Your task to perform on an android device: empty trash in google photos Image 0: 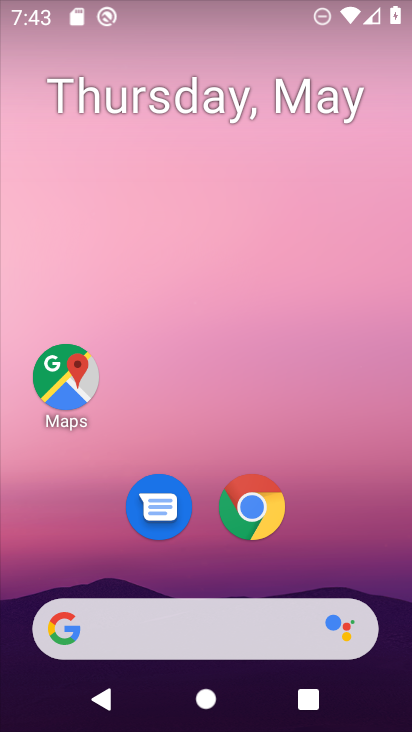
Step 0: drag from (330, 492) to (315, 5)
Your task to perform on an android device: empty trash in google photos Image 1: 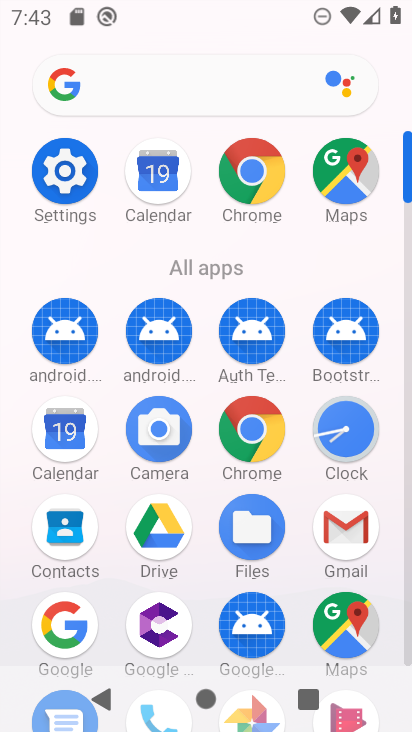
Step 1: drag from (382, 577) to (364, 250)
Your task to perform on an android device: empty trash in google photos Image 2: 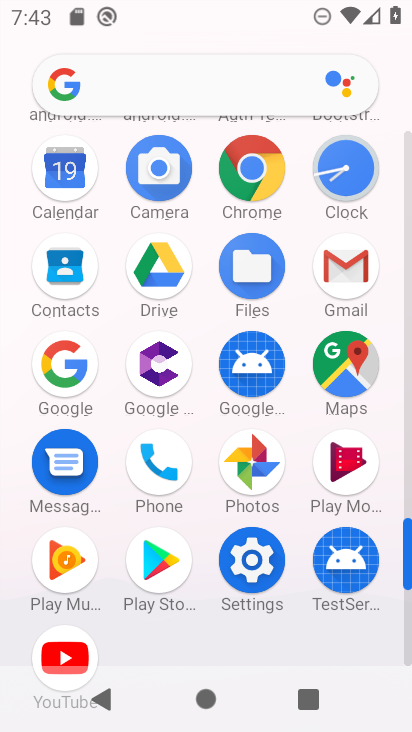
Step 2: click (233, 469)
Your task to perform on an android device: empty trash in google photos Image 3: 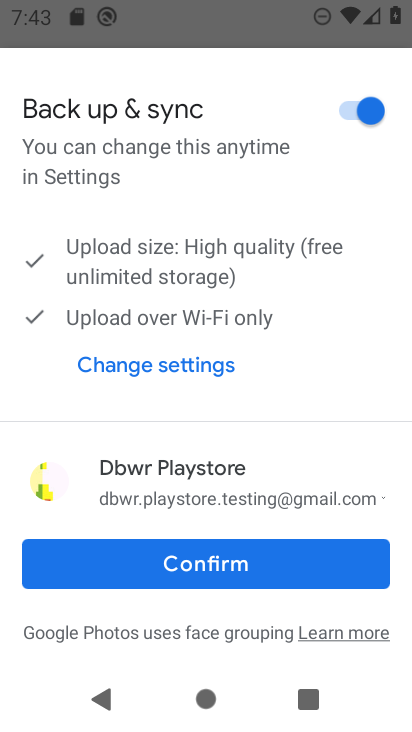
Step 3: click (235, 559)
Your task to perform on an android device: empty trash in google photos Image 4: 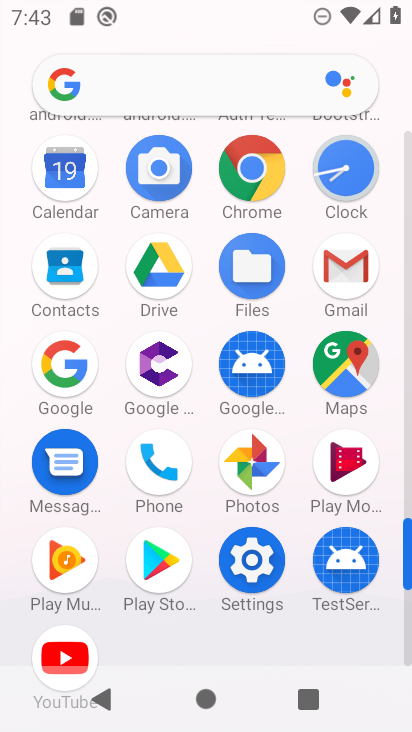
Step 4: click (267, 461)
Your task to perform on an android device: empty trash in google photos Image 5: 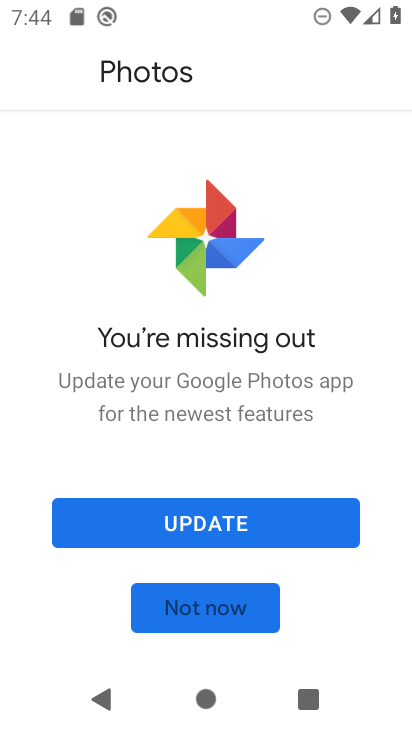
Step 5: click (180, 522)
Your task to perform on an android device: empty trash in google photos Image 6: 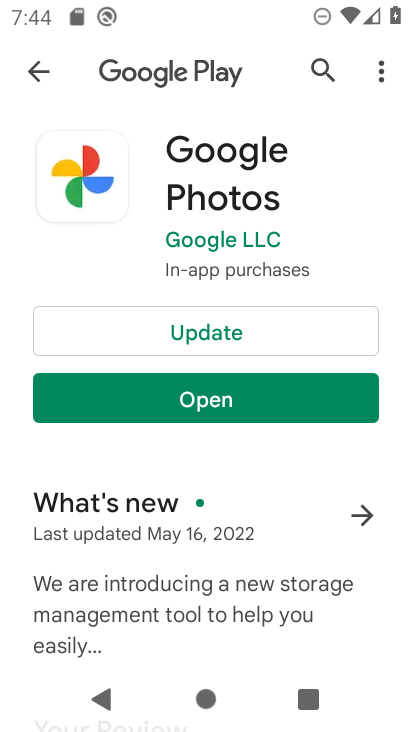
Step 6: click (187, 421)
Your task to perform on an android device: empty trash in google photos Image 7: 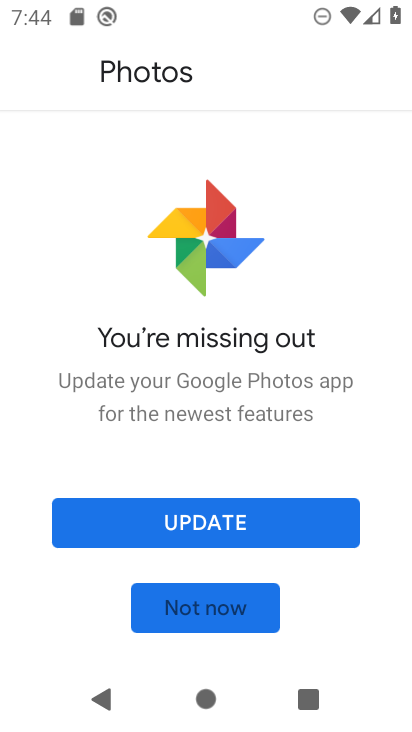
Step 7: click (225, 525)
Your task to perform on an android device: empty trash in google photos Image 8: 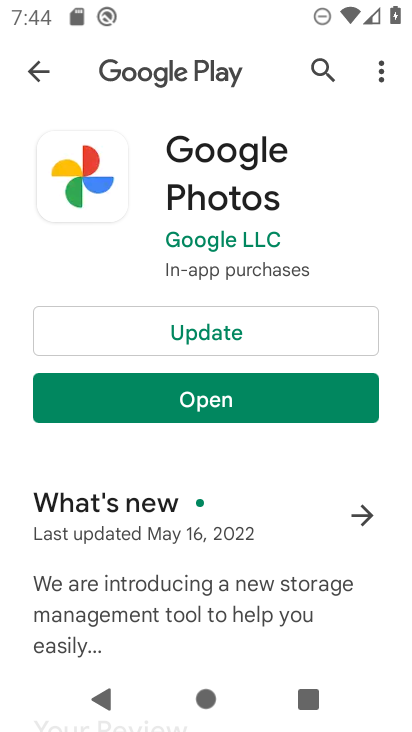
Step 8: click (241, 401)
Your task to perform on an android device: empty trash in google photos Image 9: 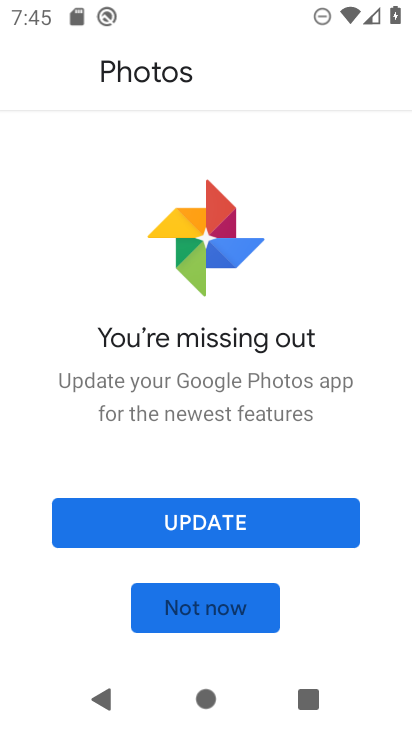
Step 9: click (219, 530)
Your task to perform on an android device: empty trash in google photos Image 10: 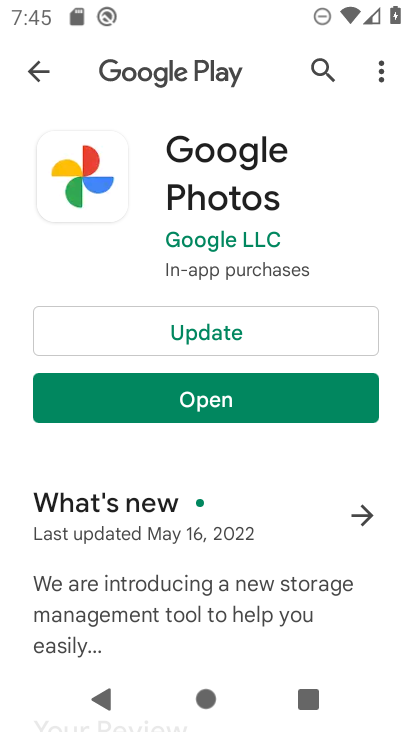
Step 10: click (216, 404)
Your task to perform on an android device: empty trash in google photos Image 11: 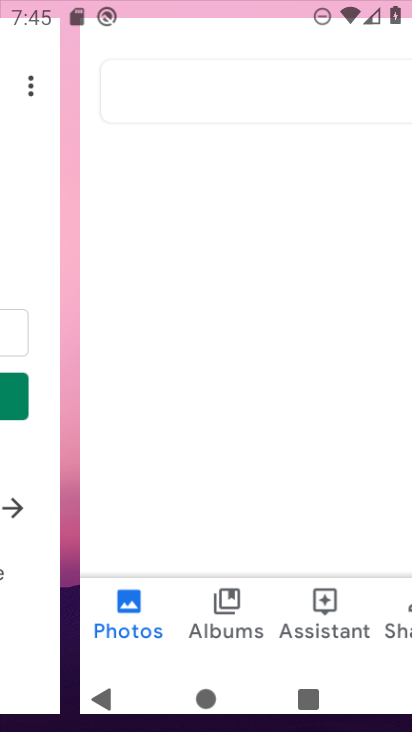
Step 11: click (199, 349)
Your task to perform on an android device: empty trash in google photos Image 12: 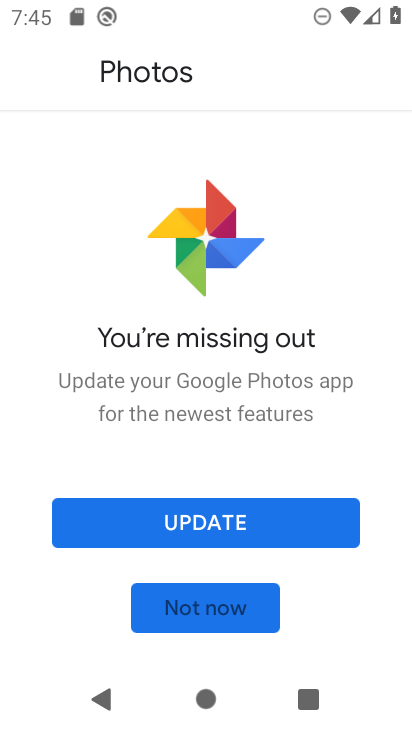
Step 12: click (200, 525)
Your task to perform on an android device: empty trash in google photos Image 13: 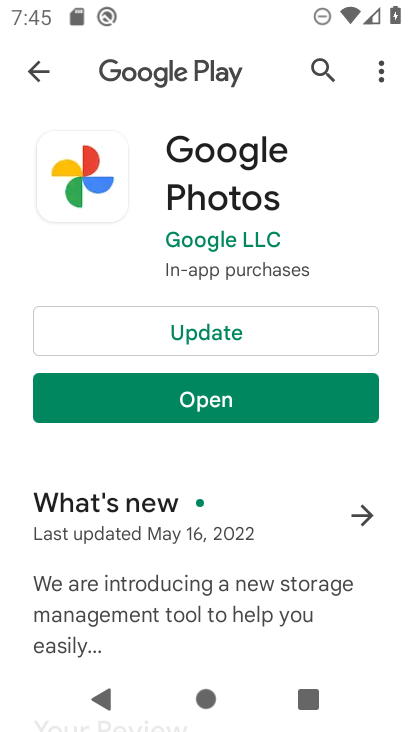
Step 13: click (208, 341)
Your task to perform on an android device: empty trash in google photos Image 14: 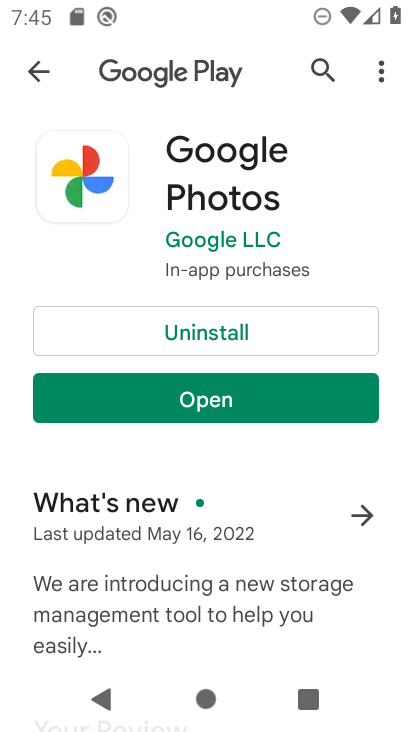
Step 14: click (244, 395)
Your task to perform on an android device: empty trash in google photos Image 15: 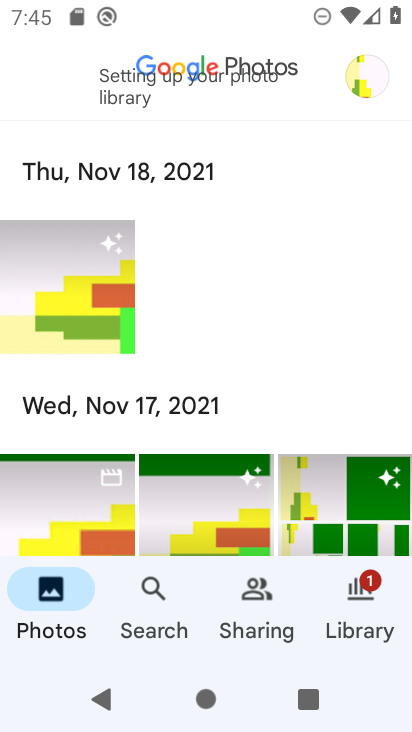
Step 15: click (365, 98)
Your task to perform on an android device: empty trash in google photos Image 16: 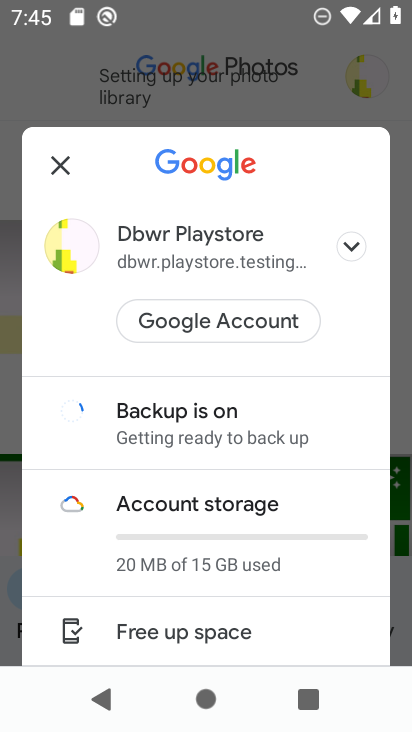
Step 16: task complete